Your task to perform on an android device: toggle priority inbox in the gmail app Image 0: 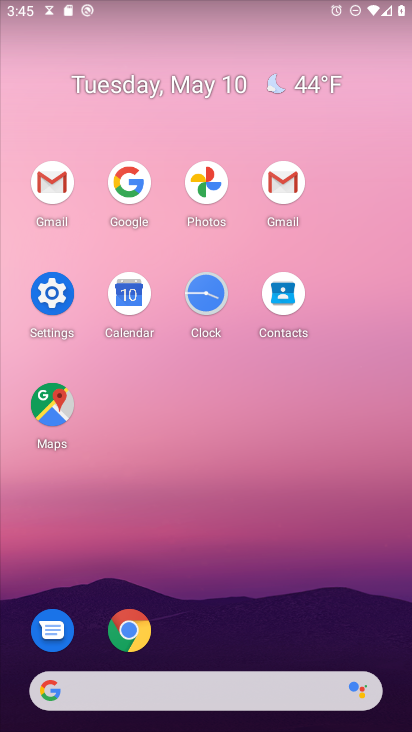
Step 0: click (274, 182)
Your task to perform on an android device: toggle priority inbox in the gmail app Image 1: 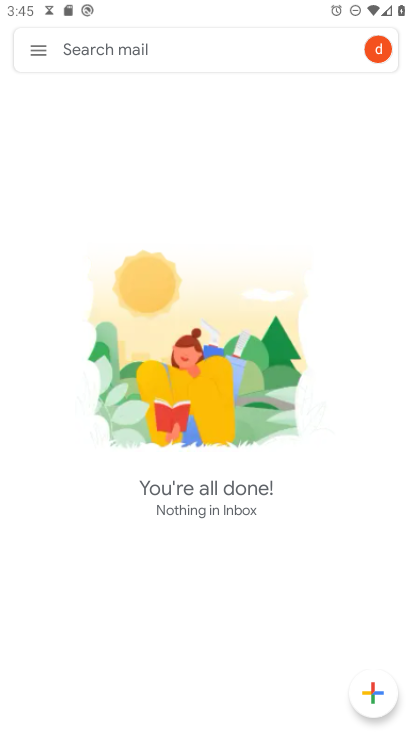
Step 1: click (31, 53)
Your task to perform on an android device: toggle priority inbox in the gmail app Image 2: 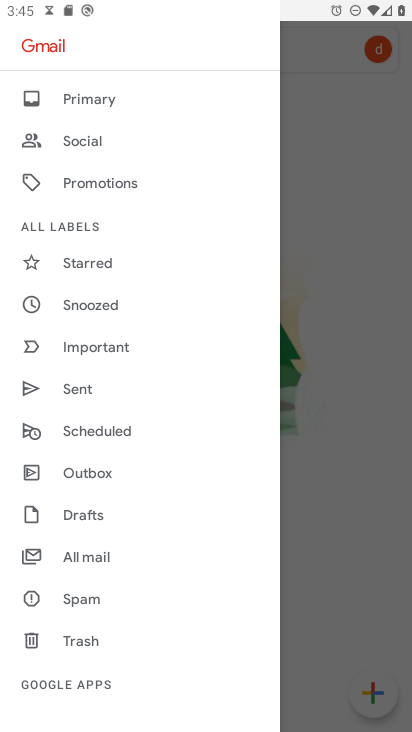
Step 2: drag from (138, 648) to (210, 251)
Your task to perform on an android device: toggle priority inbox in the gmail app Image 3: 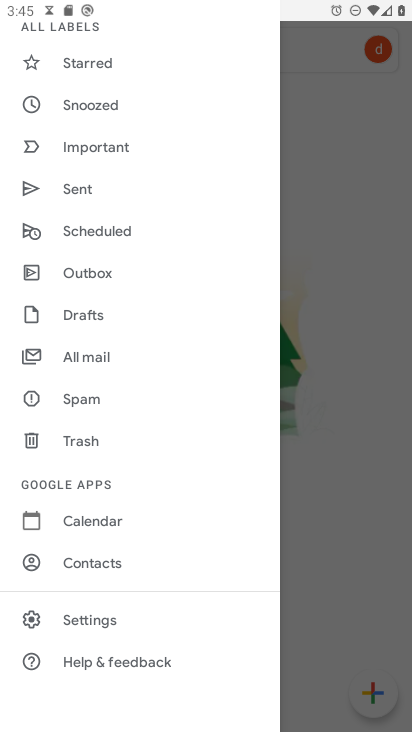
Step 3: click (97, 613)
Your task to perform on an android device: toggle priority inbox in the gmail app Image 4: 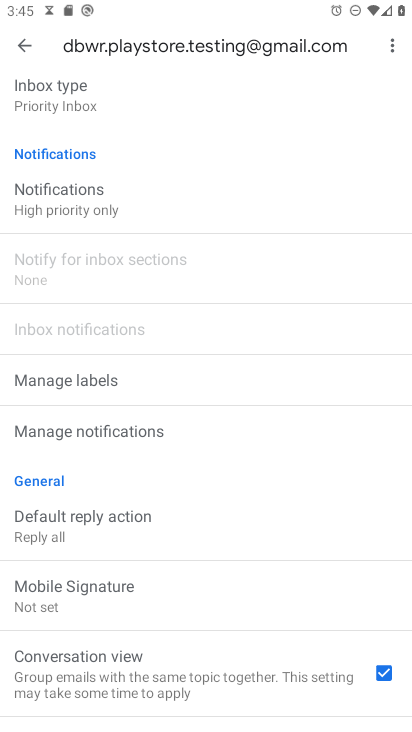
Step 4: click (131, 103)
Your task to perform on an android device: toggle priority inbox in the gmail app Image 5: 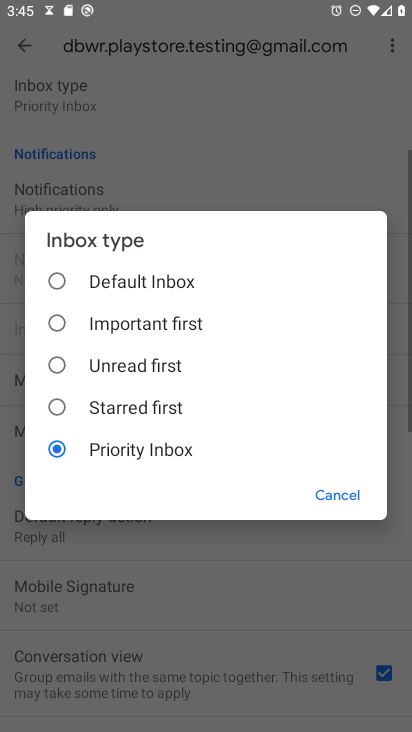
Step 5: click (161, 283)
Your task to perform on an android device: toggle priority inbox in the gmail app Image 6: 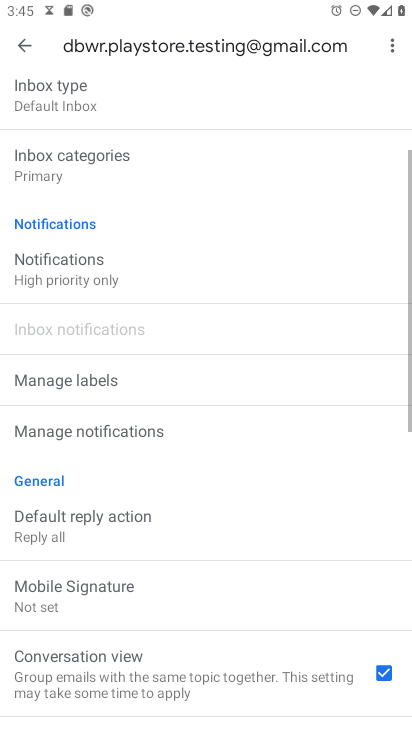
Step 6: task complete